Your task to perform on an android device: Go to network settings Image 0: 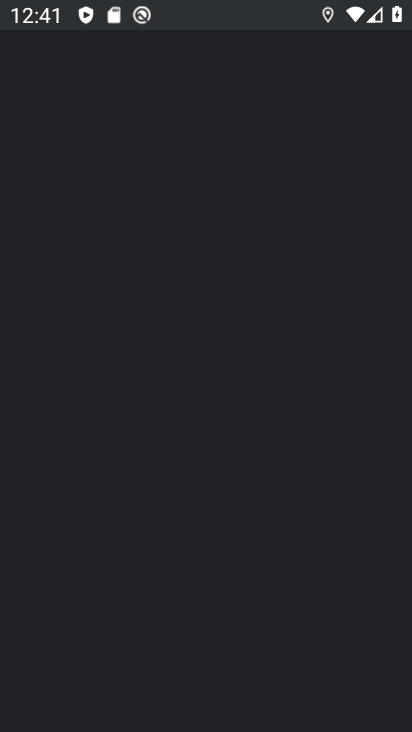
Step 0: click (75, 434)
Your task to perform on an android device: Go to network settings Image 1: 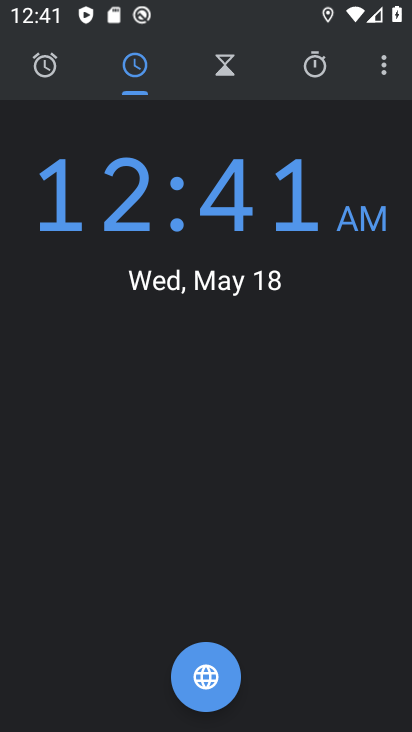
Step 1: press back button
Your task to perform on an android device: Go to network settings Image 2: 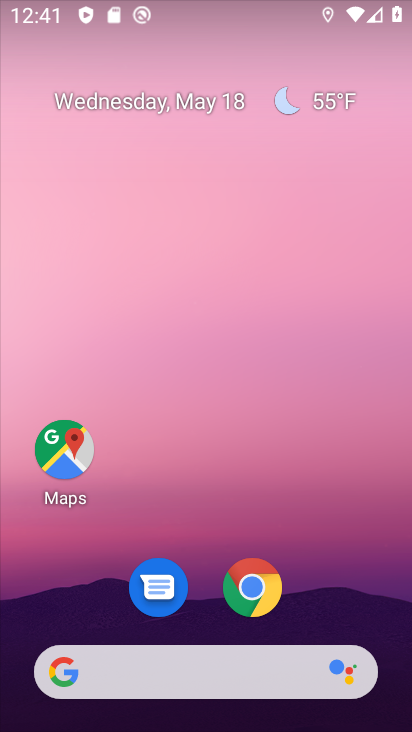
Step 2: drag from (179, 599) to (177, 121)
Your task to perform on an android device: Go to network settings Image 3: 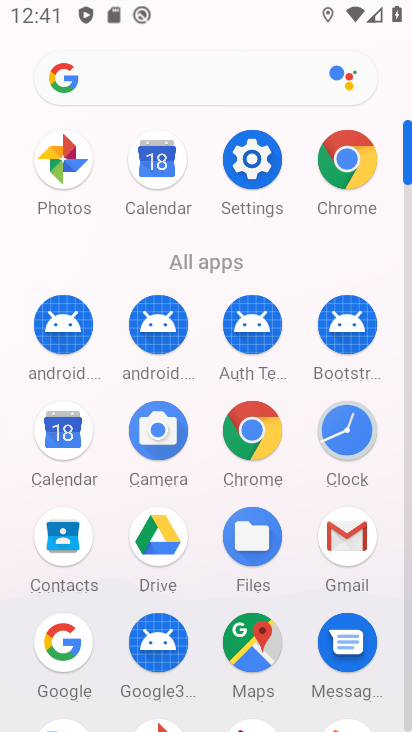
Step 3: click (259, 150)
Your task to perform on an android device: Go to network settings Image 4: 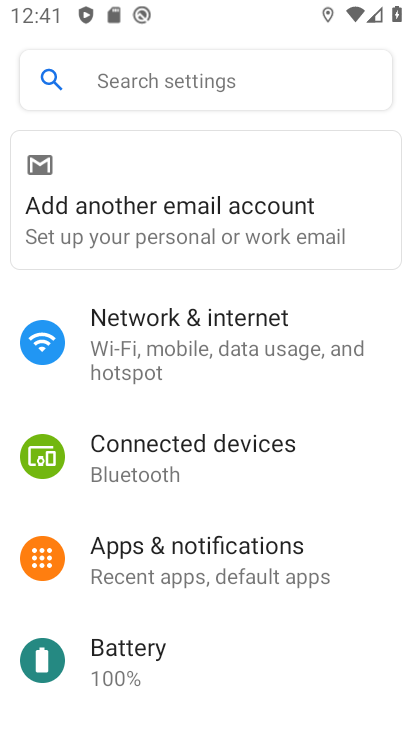
Step 4: click (138, 347)
Your task to perform on an android device: Go to network settings Image 5: 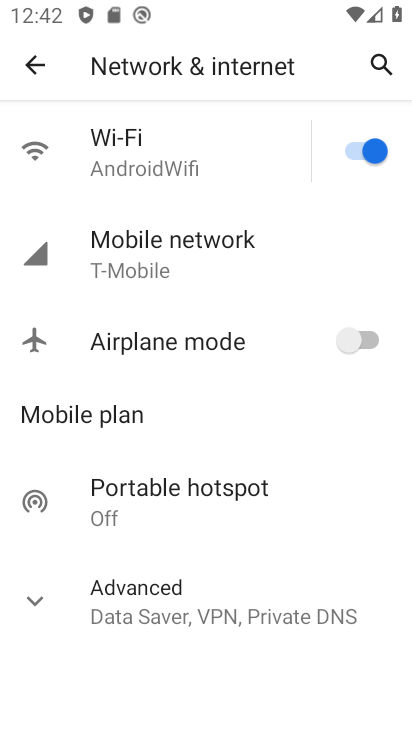
Step 5: task complete